Your task to perform on an android device: check android version Image 0: 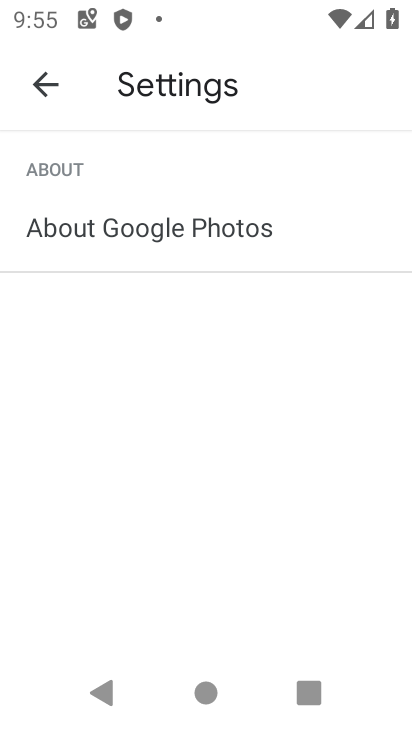
Step 0: press home button
Your task to perform on an android device: check android version Image 1: 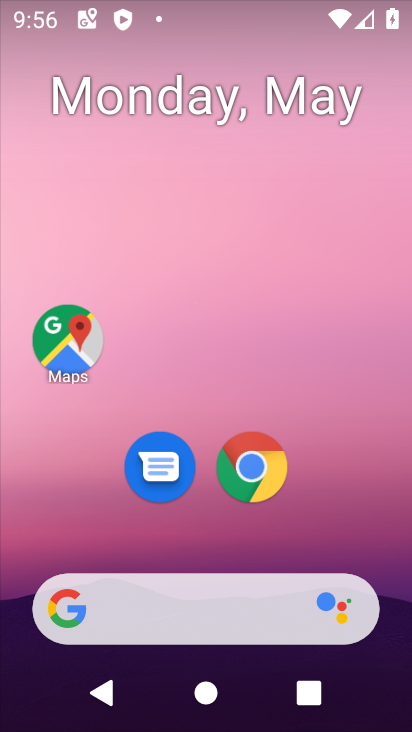
Step 1: drag from (395, 603) to (257, 2)
Your task to perform on an android device: check android version Image 2: 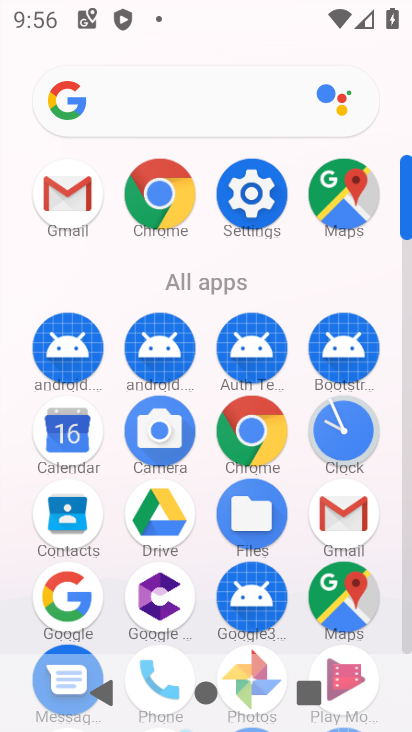
Step 2: click (406, 622)
Your task to perform on an android device: check android version Image 3: 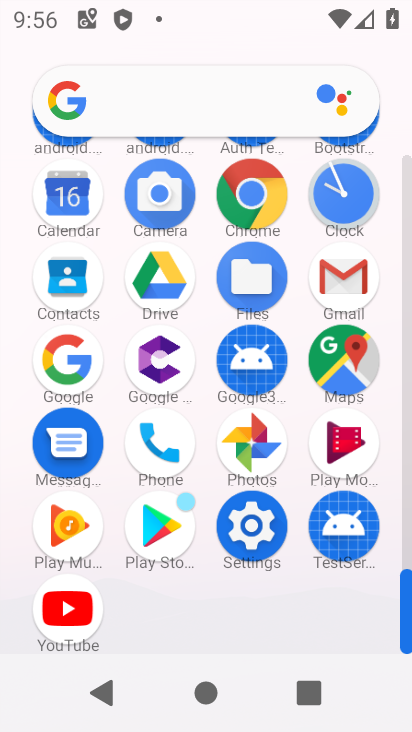
Step 3: click (248, 528)
Your task to perform on an android device: check android version Image 4: 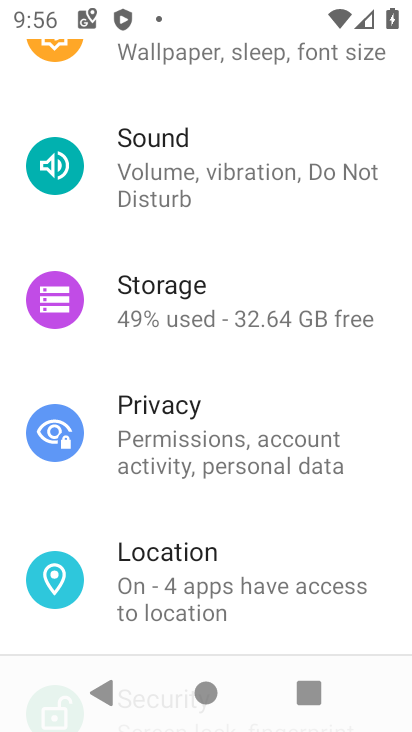
Step 4: drag from (253, 586) to (269, 237)
Your task to perform on an android device: check android version Image 5: 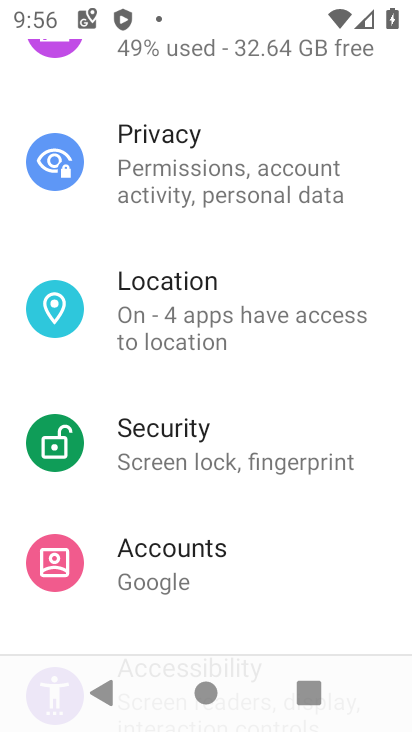
Step 5: drag from (257, 600) to (272, 290)
Your task to perform on an android device: check android version Image 6: 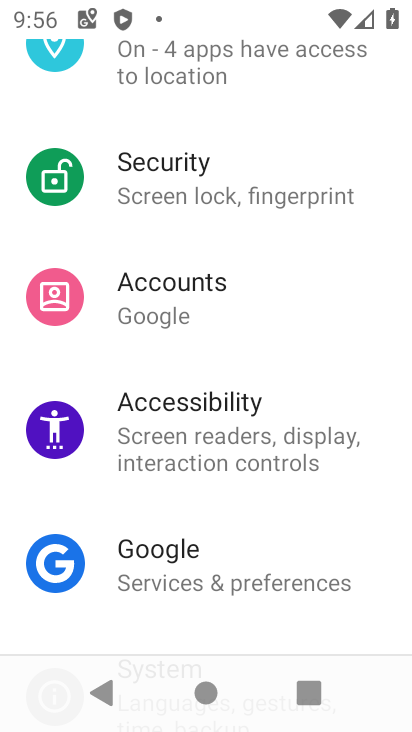
Step 6: drag from (264, 548) to (247, 218)
Your task to perform on an android device: check android version Image 7: 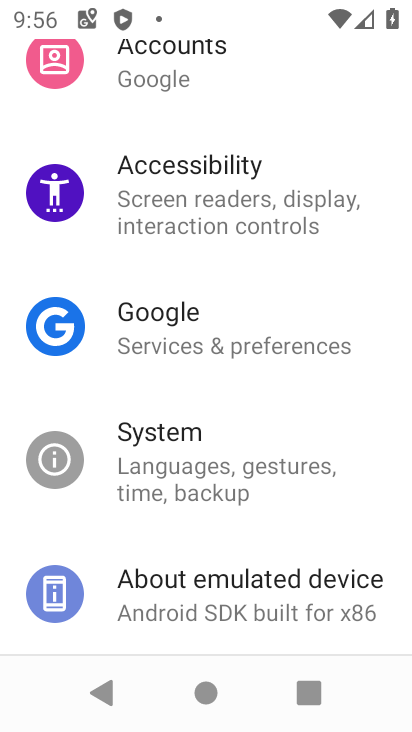
Step 7: drag from (224, 538) to (186, 209)
Your task to perform on an android device: check android version Image 8: 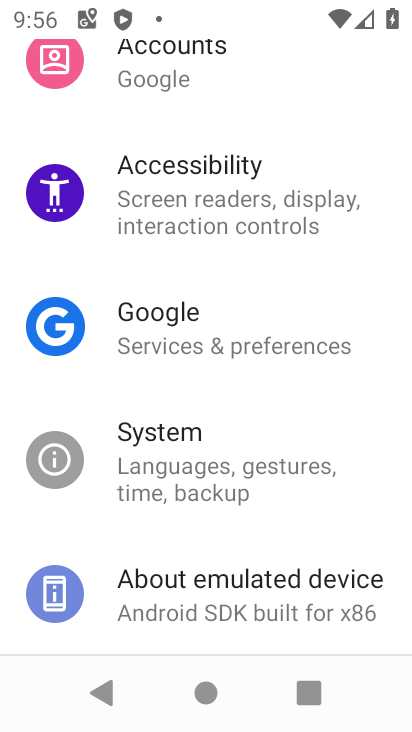
Step 8: click (166, 588)
Your task to perform on an android device: check android version Image 9: 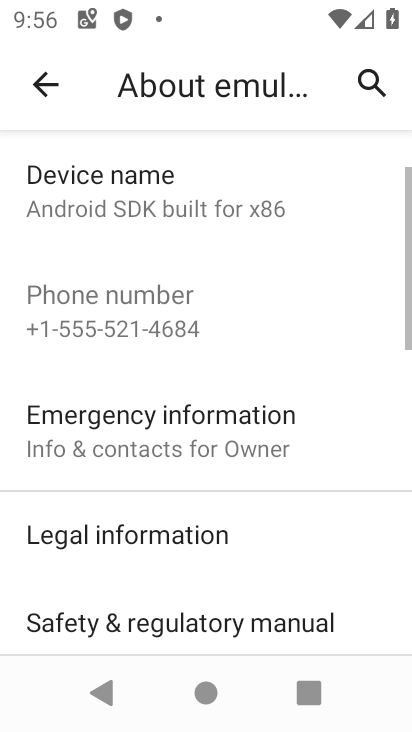
Step 9: drag from (306, 544) to (287, 313)
Your task to perform on an android device: check android version Image 10: 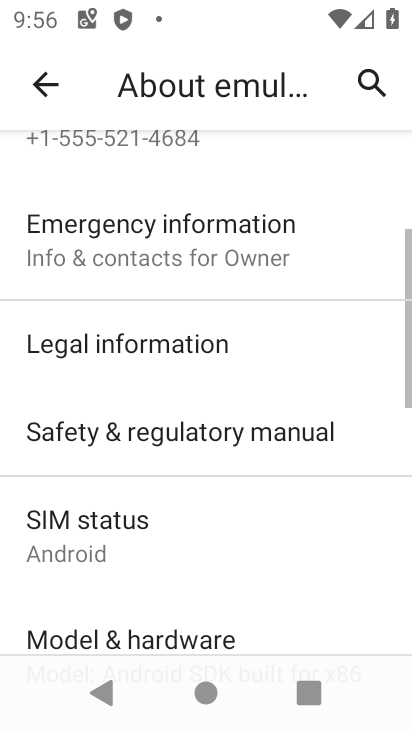
Step 10: drag from (300, 583) to (253, 88)
Your task to perform on an android device: check android version Image 11: 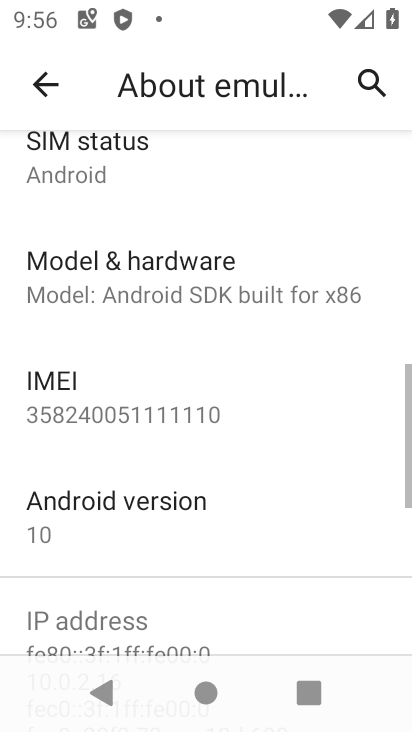
Step 11: click (109, 531)
Your task to perform on an android device: check android version Image 12: 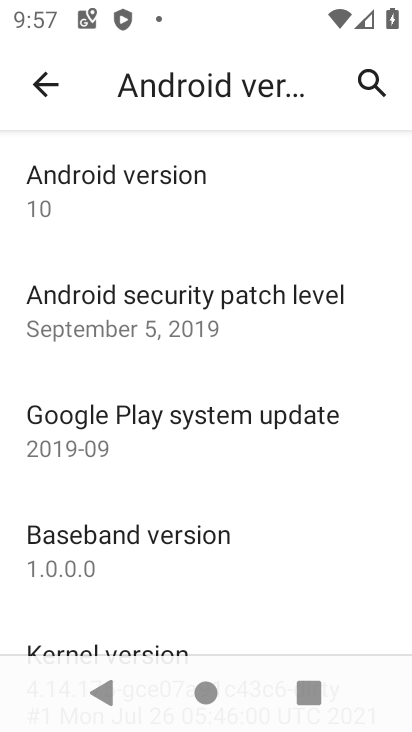
Step 12: click (103, 186)
Your task to perform on an android device: check android version Image 13: 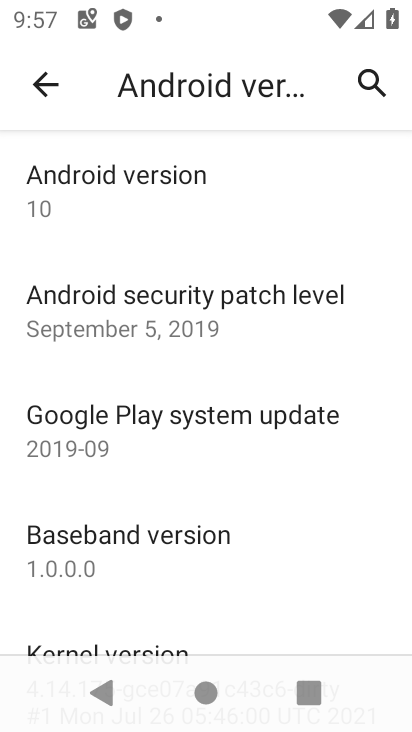
Step 13: task complete